Your task to perform on an android device: Open Reddit.com Image 0: 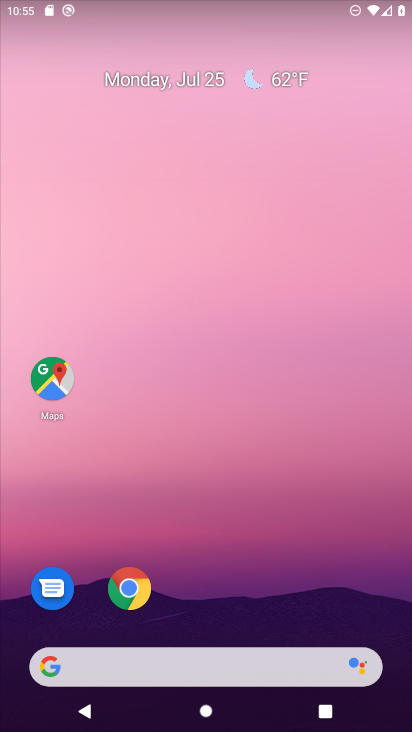
Step 0: click (142, 660)
Your task to perform on an android device: Open Reddit.com Image 1: 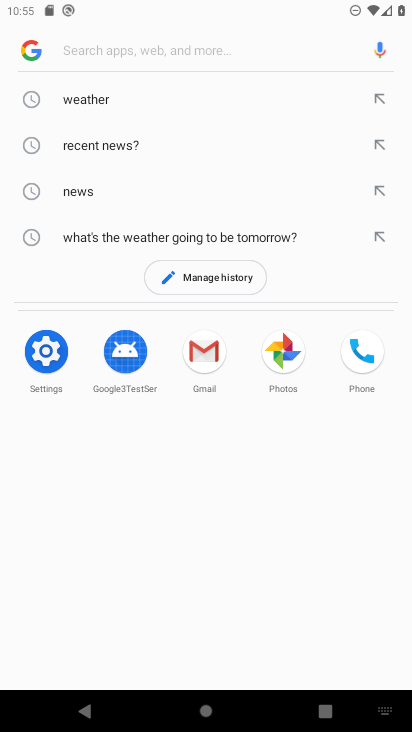
Step 1: click (196, 28)
Your task to perform on an android device: Open Reddit.com Image 2: 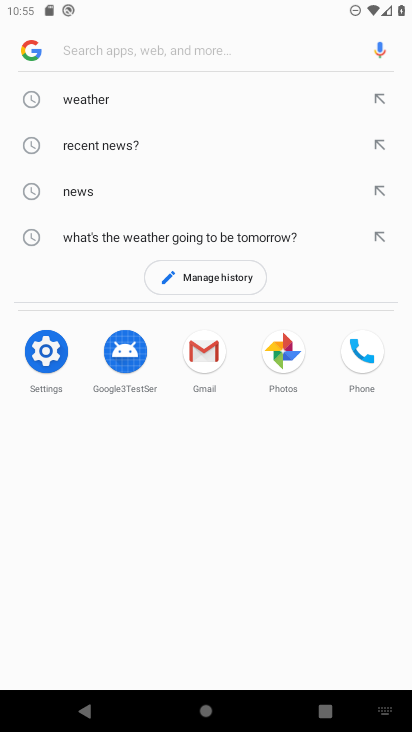
Step 2: type " Reddit.com"
Your task to perform on an android device: Open Reddit.com Image 3: 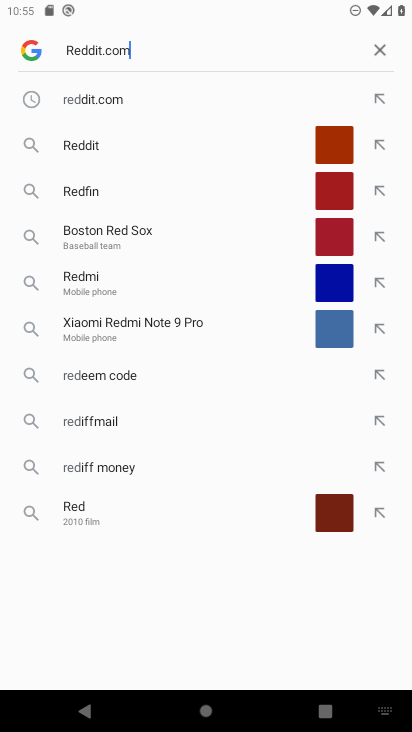
Step 3: type ""
Your task to perform on an android device: Open Reddit.com Image 4: 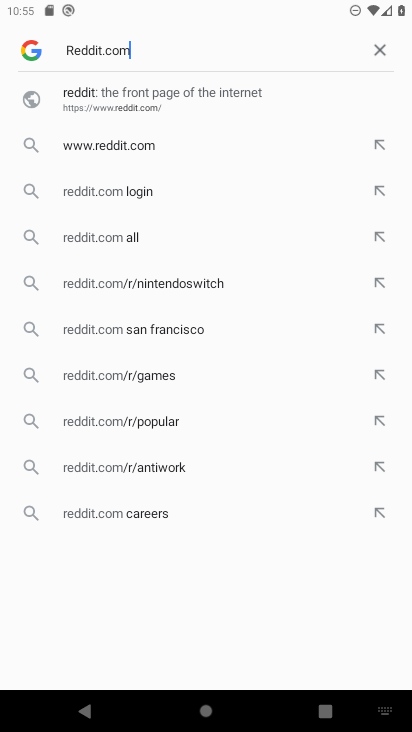
Step 4: click (111, 108)
Your task to perform on an android device: Open Reddit.com Image 5: 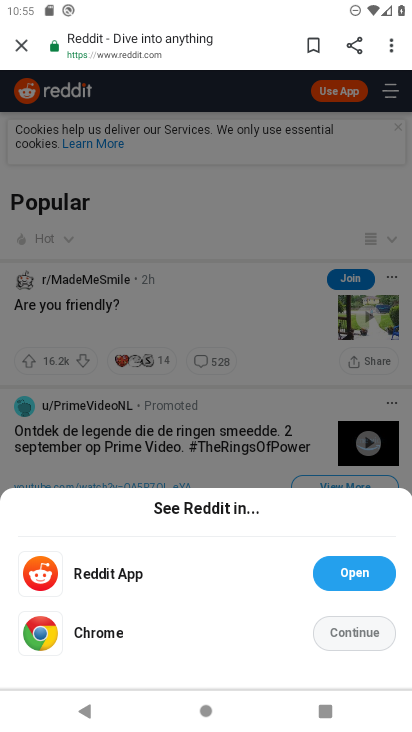
Step 5: task complete